Your task to perform on an android device: Open Maps and search for coffee Image 0: 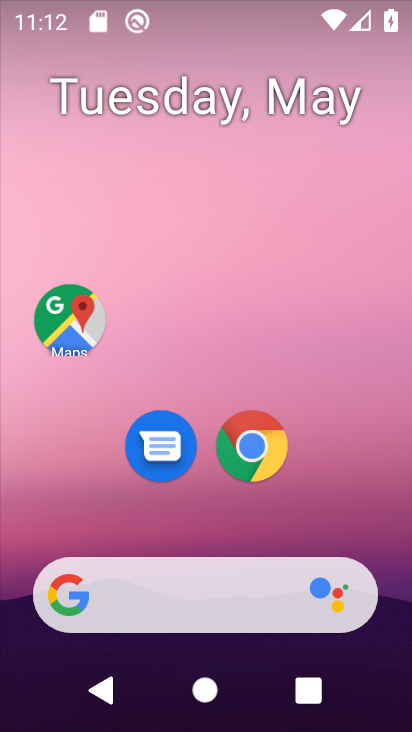
Step 0: click (68, 323)
Your task to perform on an android device: Open Maps and search for coffee Image 1: 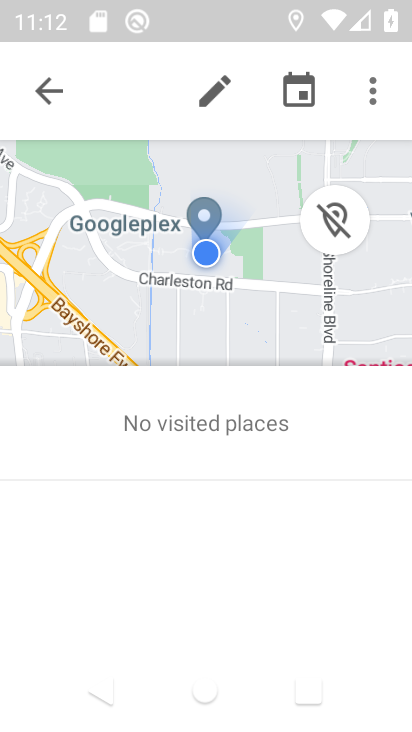
Step 1: click (50, 87)
Your task to perform on an android device: Open Maps and search for coffee Image 2: 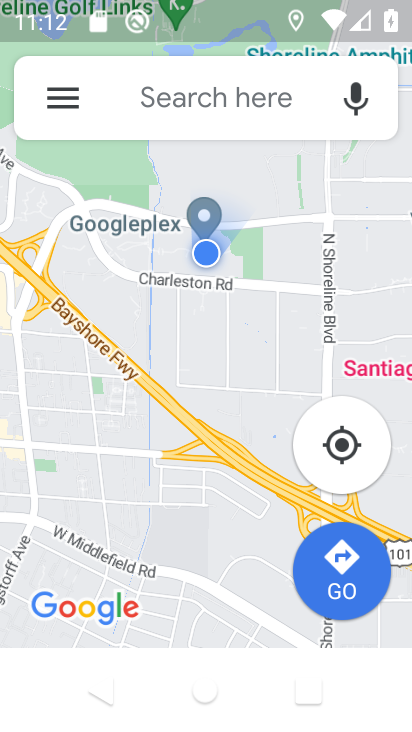
Step 2: click (171, 104)
Your task to perform on an android device: Open Maps and search for coffee Image 3: 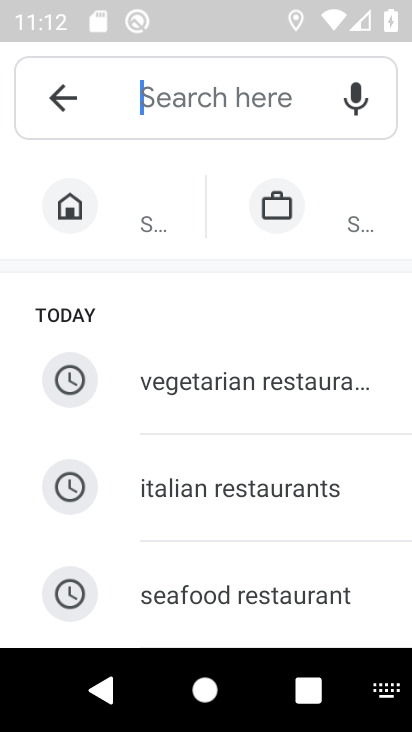
Step 3: type "coffee"
Your task to perform on an android device: Open Maps and search for coffee Image 4: 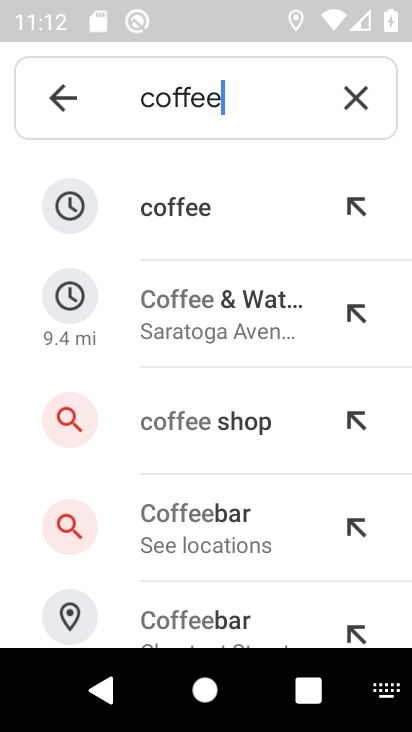
Step 4: click (184, 211)
Your task to perform on an android device: Open Maps and search for coffee Image 5: 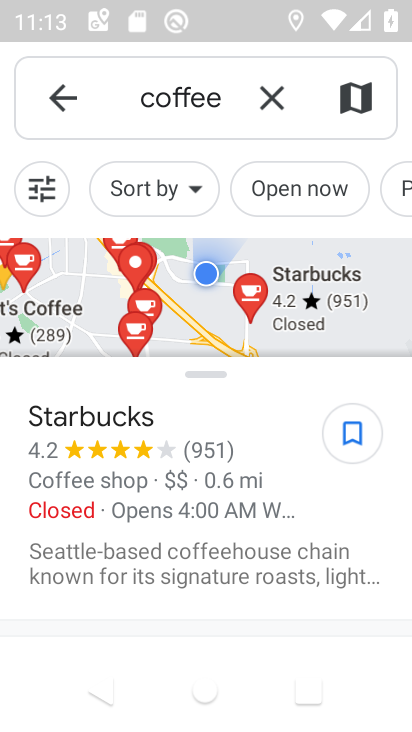
Step 5: task complete